Your task to perform on an android device: Open notification settings Image 0: 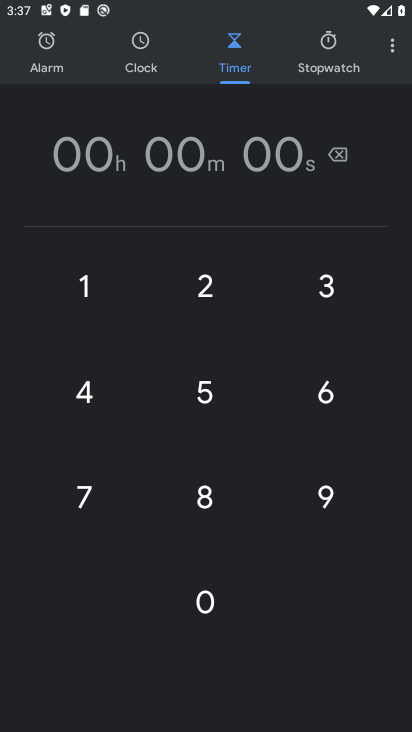
Step 0: press home button
Your task to perform on an android device: Open notification settings Image 1: 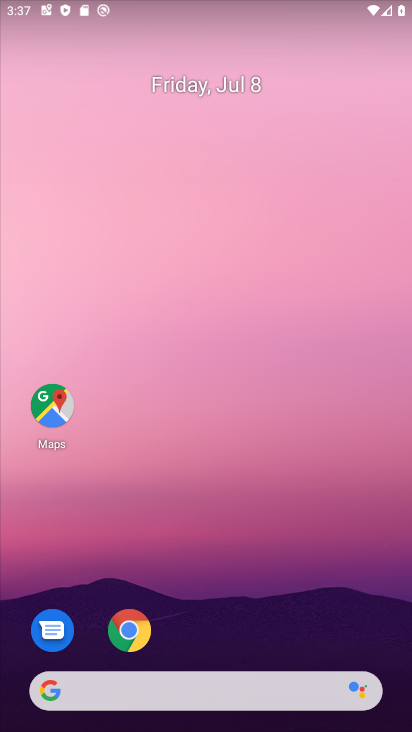
Step 1: drag from (246, 644) to (236, 187)
Your task to perform on an android device: Open notification settings Image 2: 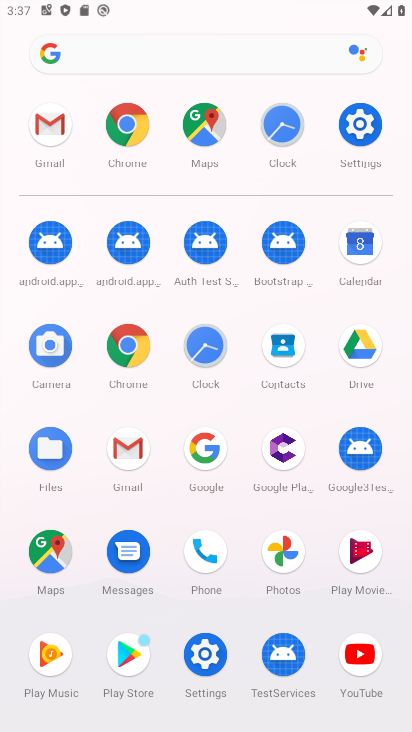
Step 2: click (339, 114)
Your task to perform on an android device: Open notification settings Image 3: 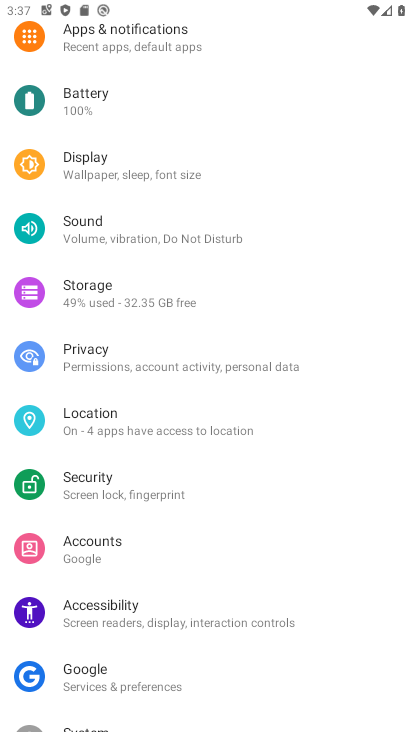
Step 3: drag from (281, 176) to (260, 540)
Your task to perform on an android device: Open notification settings Image 4: 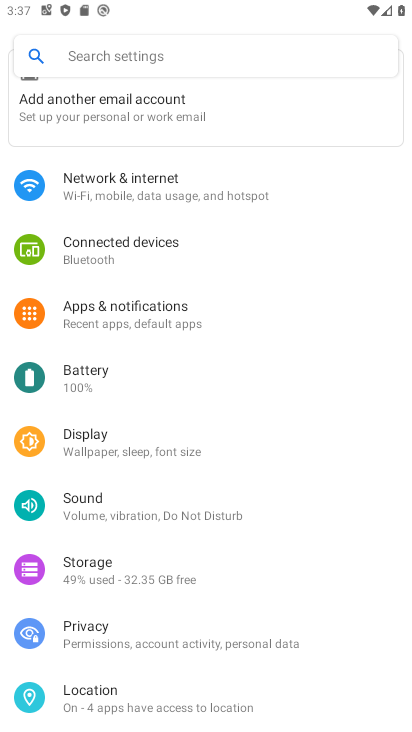
Step 4: drag from (258, 273) to (256, 567)
Your task to perform on an android device: Open notification settings Image 5: 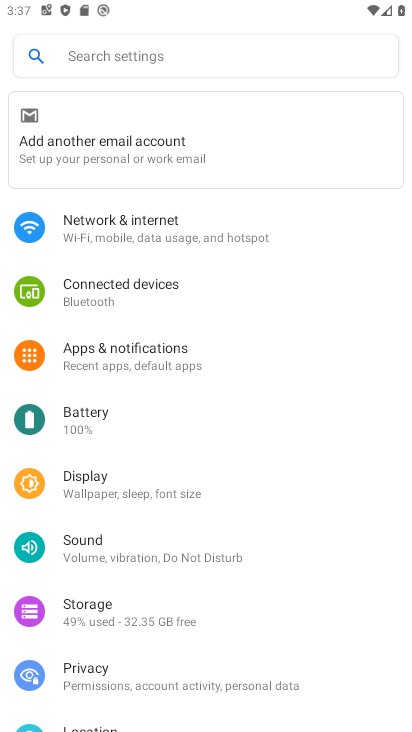
Step 5: drag from (223, 666) to (223, 518)
Your task to perform on an android device: Open notification settings Image 6: 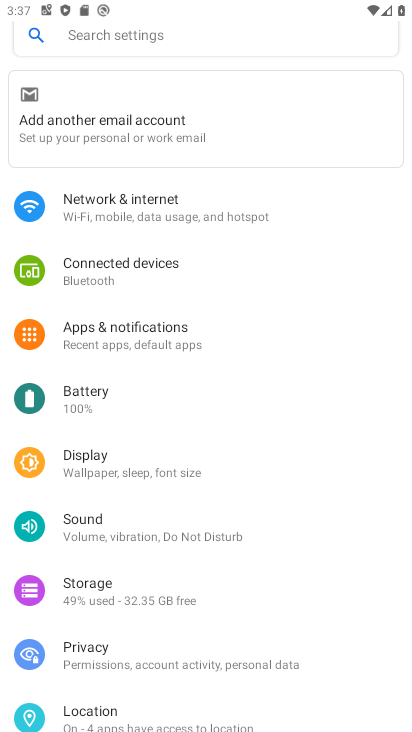
Step 6: click (101, 688)
Your task to perform on an android device: Open notification settings Image 7: 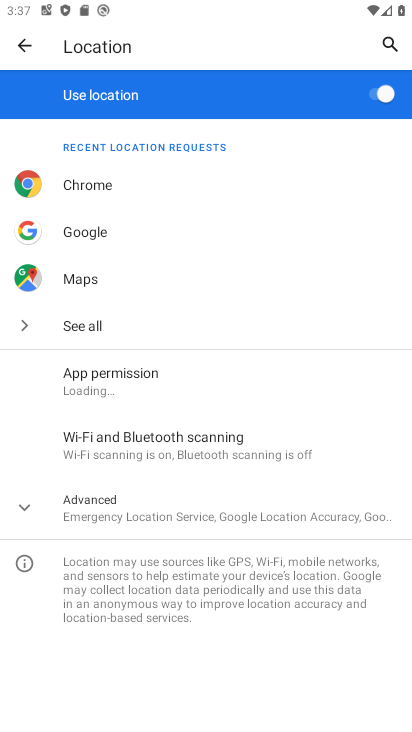
Step 7: click (23, 35)
Your task to perform on an android device: Open notification settings Image 8: 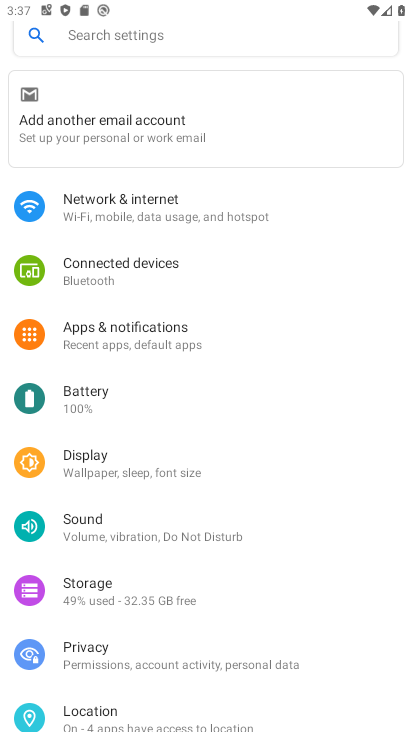
Step 8: click (97, 334)
Your task to perform on an android device: Open notification settings Image 9: 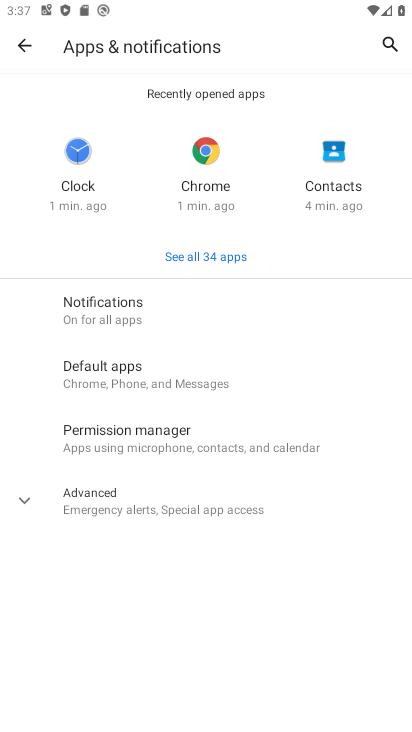
Step 9: task complete